Your task to perform on an android device: Open Maps and search for coffee Image 0: 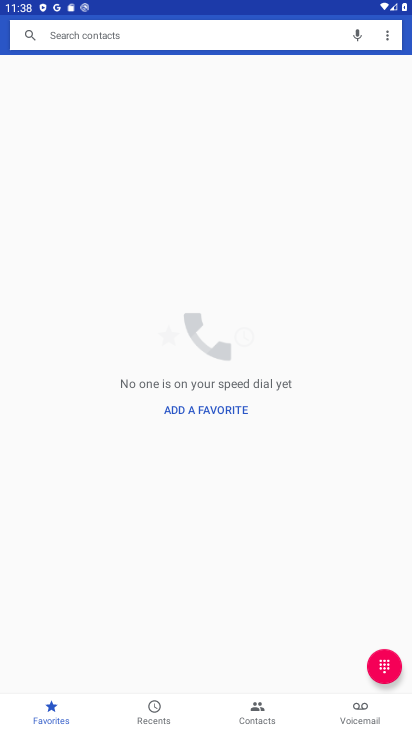
Step 0: press home button
Your task to perform on an android device: Open Maps and search for coffee Image 1: 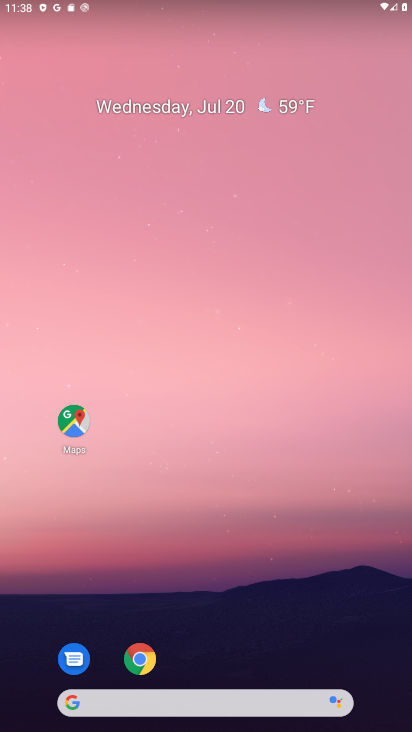
Step 1: click (72, 424)
Your task to perform on an android device: Open Maps and search for coffee Image 2: 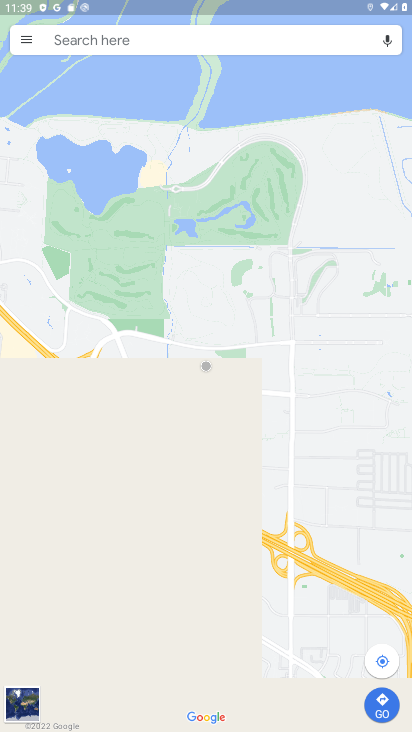
Step 2: click (190, 36)
Your task to perform on an android device: Open Maps and search for coffee Image 3: 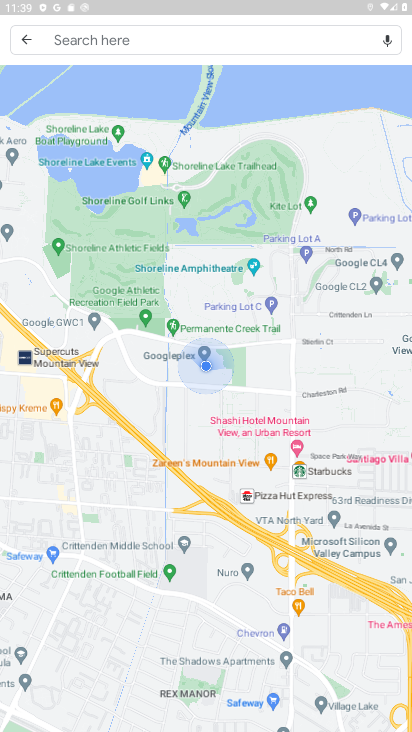
Step 3: click (154, 36)
Your task to perform on an android device: Open Maps and search for coffee Image 4: 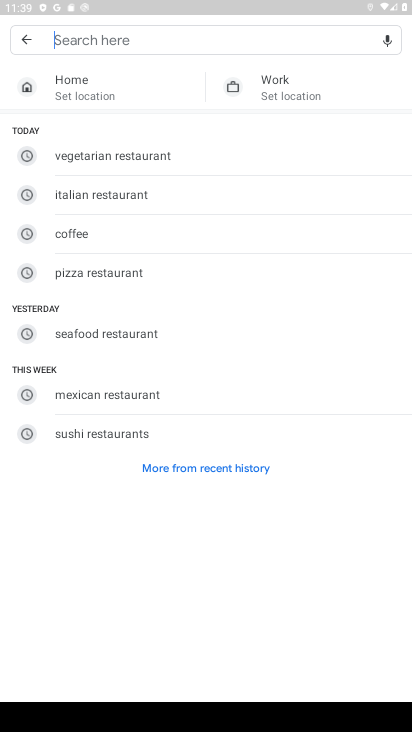
Step 4: click (69, 230)
Your task to perform on an android device: Open Maps and search for coffee Image 5: 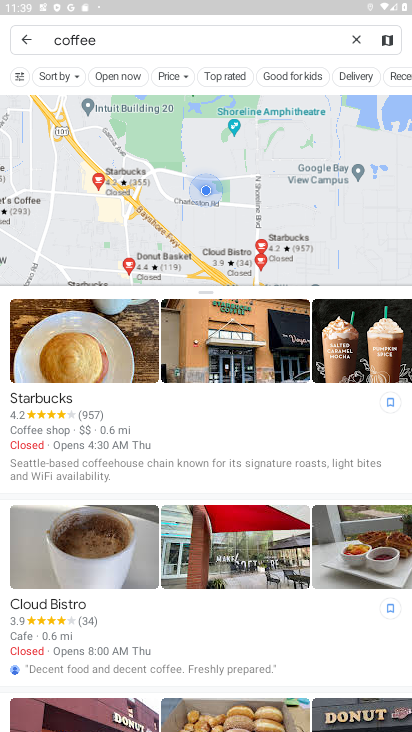
Step 5: task complete